Your task to perform on an android device: Open privacy settings Image 0: 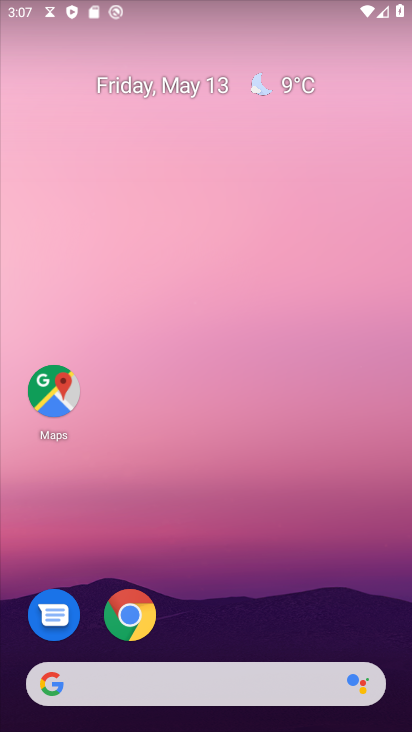
Step 0: drag from (214, 720) to (214, 143)
Your task to perform on an android device: Open privacy settings Image 1: 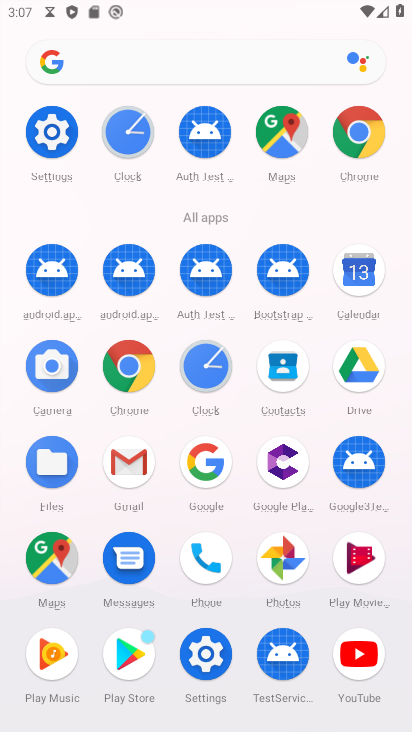
Step 1: click (206, 651)
Your task to perform on an android device: Open privacy settings Image 2: 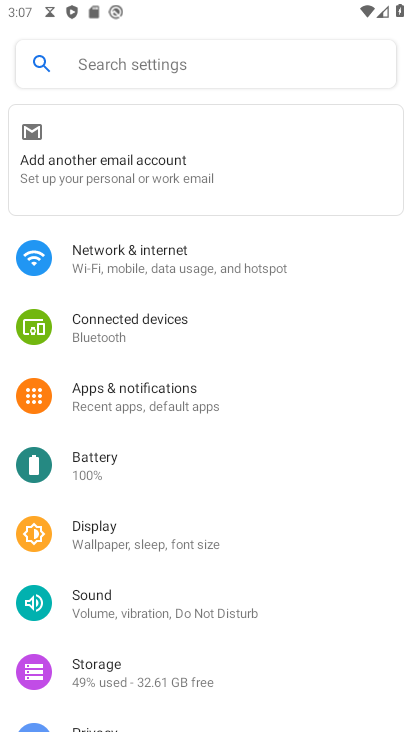
Step 2: drag from (205, 671) to (221, 433)
Your task to perform on an android device: Open privacy settings Image 3: 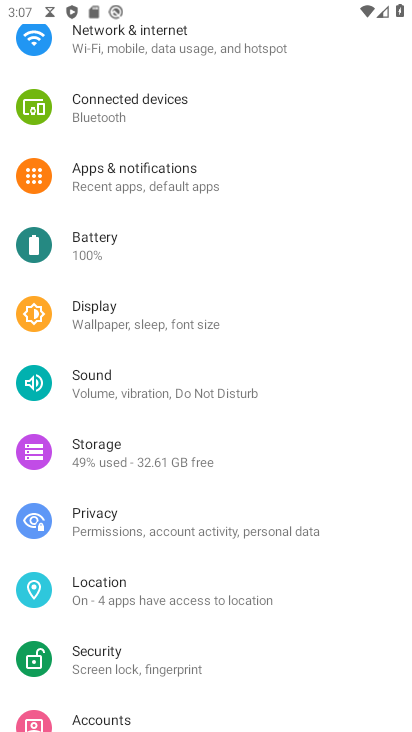
Step 3: click (110, 519)
Your task to perform on an android device: Open privacy settings Image 4: 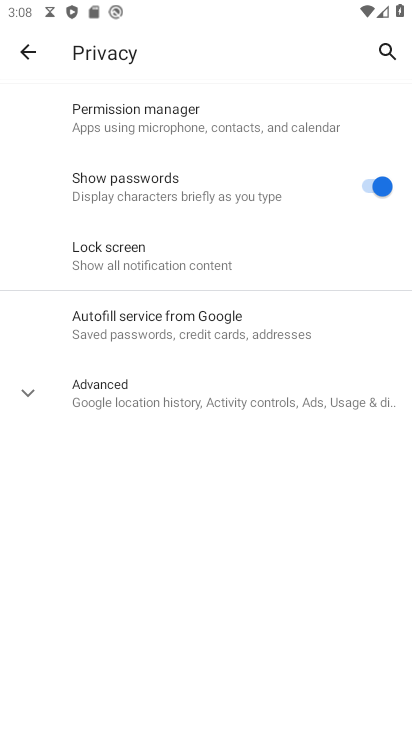
Step 4: task complete